Your task to perform on an android device: Go to Android settings Image 0: 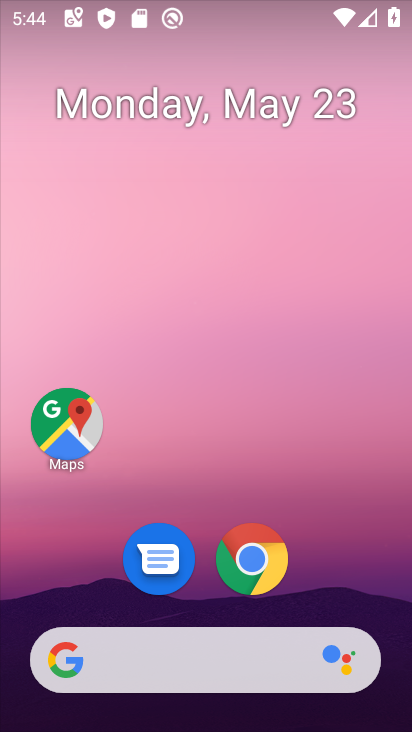
Step 0: drag from (261, 614) to (263, 9)
Your task to perform on an android device: Go to Android settings Image 1: 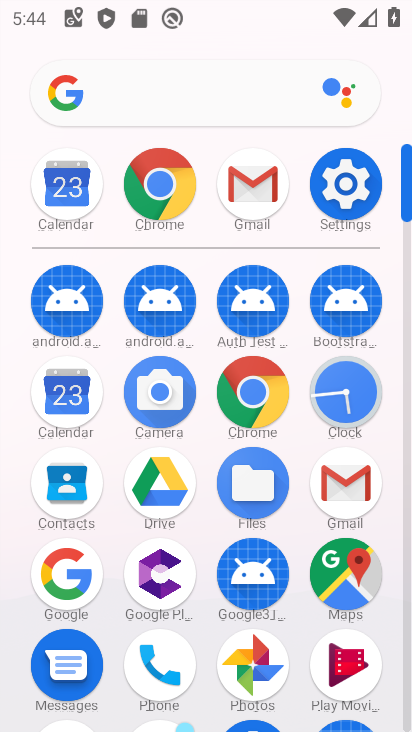
Step 1: click (347, 166)
Your task to perform on an android device: Go to Android settings Image 2: 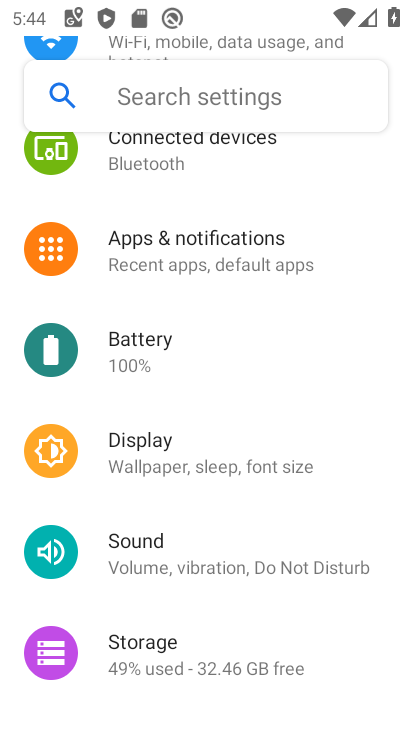
Step 2: drag from (170, 656) to (255, 19)
Your task to perform on an android device: Go to Android settings Image 3: 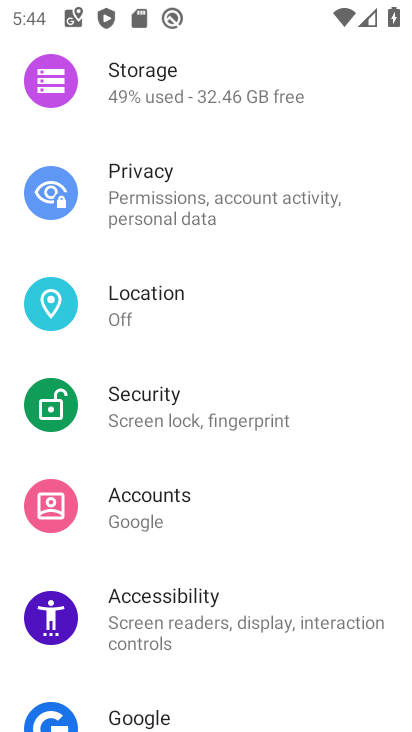
Step 3: drag from (233, 680) to (297, 193)
Your task to perform on an android device: Go to Android settings Image 4: 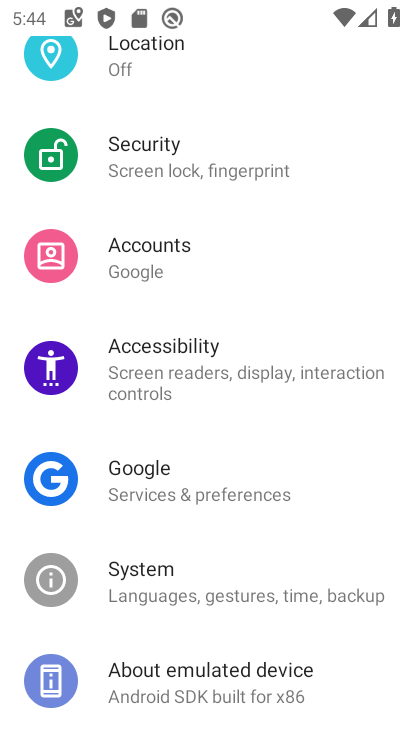
Step 4: click (200, 690)
Your task to perform on an android device: Go to Android settings Image 5: 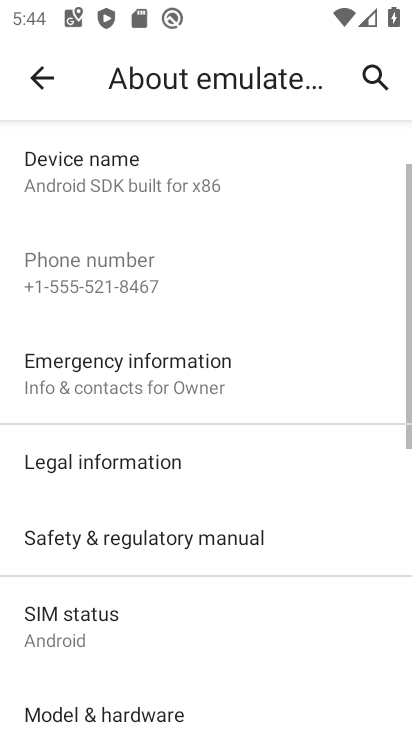
Step 5: drag from (200, 690) to (242, 195)
Your task to perform on an android device: Go to Android settings Image 6: 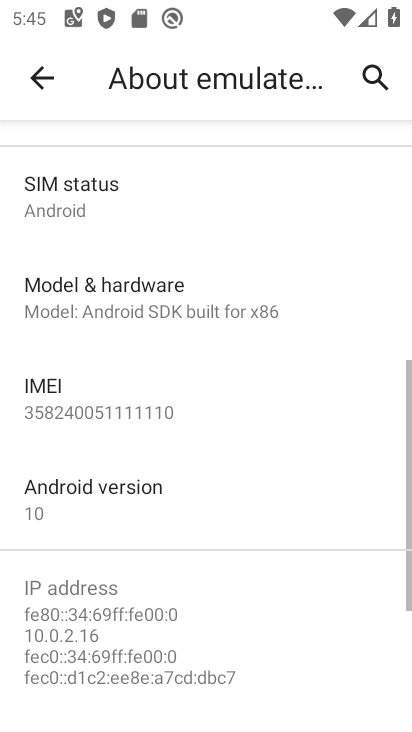
Step 6: click (111, 490)
Your task to perform on an android device: Go to Android settings Image 7: 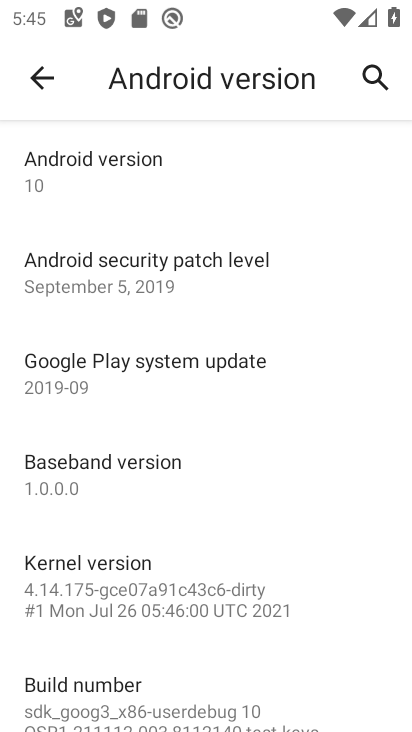
Step 7: task complete